Your task to perform on an android device: open sync settings in chrome Image 0: 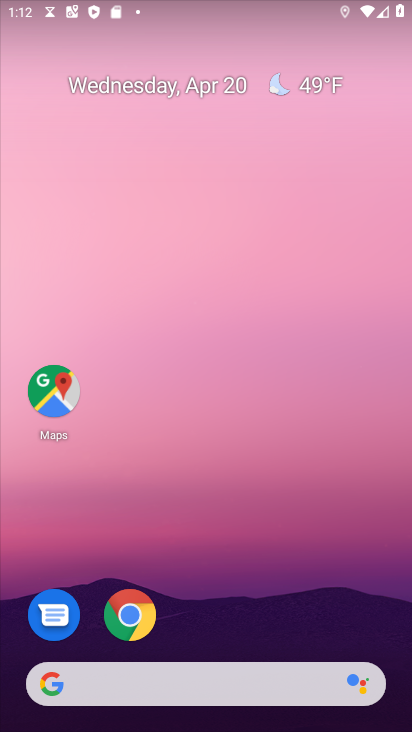
Step 0: click (125, 606)
Your task to perform on an android device: open sync settings in chrome Image 1: 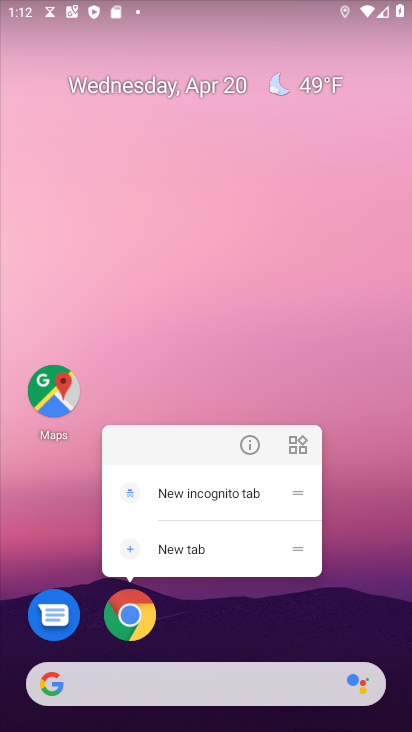
Step 1: click (121, 609)
Your task to perform on an android device: open sync settings in chrome Image 2: 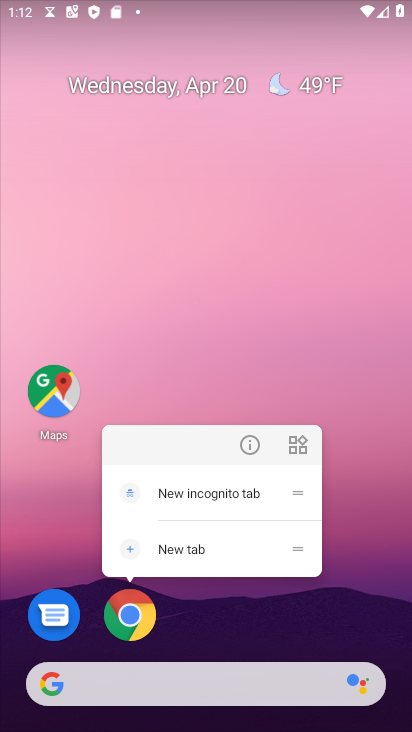
Step 2: click (122, 609)
Your task to perform on an android device: open sync settings in chrome Image 3: 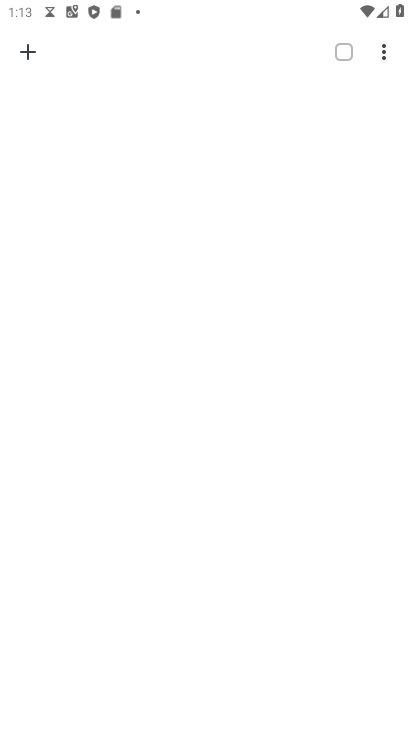
Step 3: task complete